Your task to perform on an android device: turn on improve location accuracy Image 0: 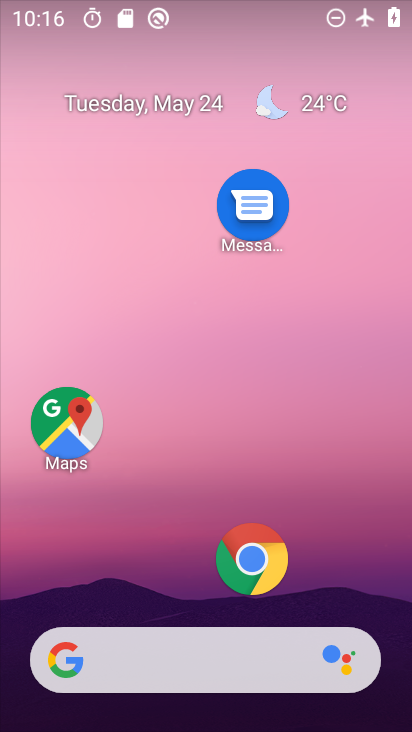
Step 0: drag from (185, 589) to (167, 222)
Your task to perform on an android device: turn on improve location accuracy Image 1: 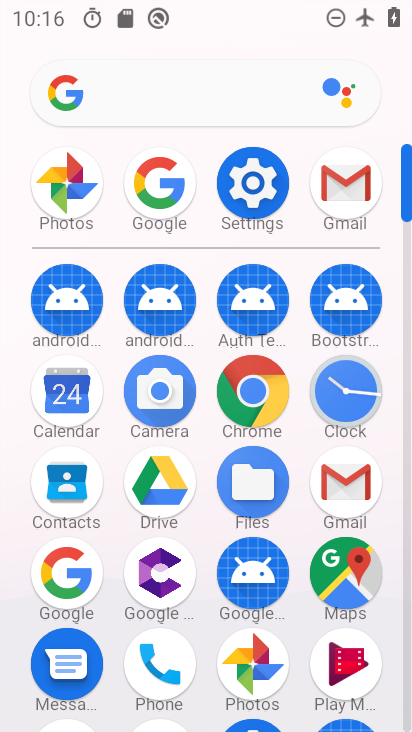
Step 1: click (254, 173)
Your task to perform on an android device: turn on improve location accuracy Image 2: 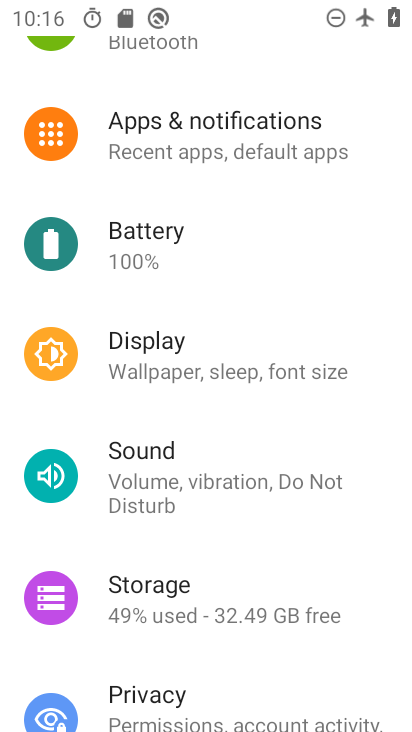
Step 2: drag from (248, 645) to (261, 273)
Your task to perform on an android device: turn on improve location accuracy Image 3: 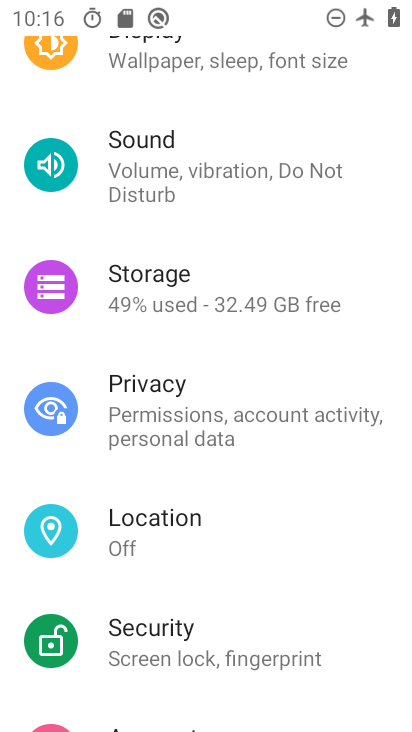
Step 3: drag from (234, 597) to (243, 317)
Your task to perform on an android device: turn on improve location accuracy Image 4: 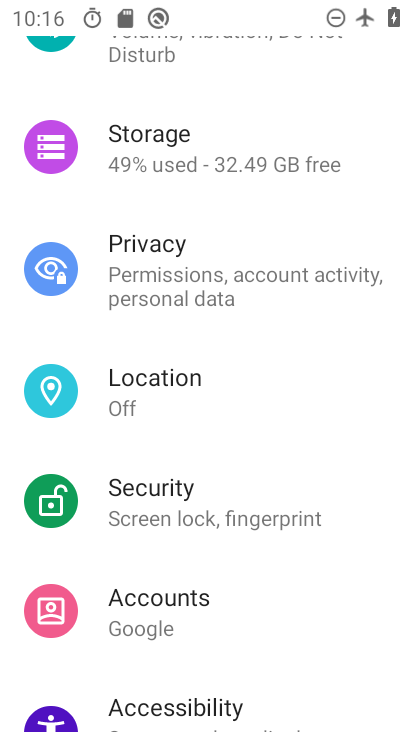
Step 4: click (213, 397)
Your task to perform on an android device: turn on improve location accuracy Image 5: 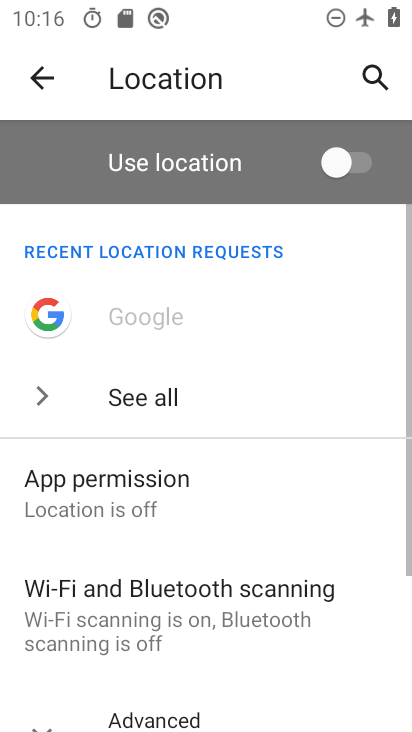
Step 5: drag from (201, 674) to (226, 414)
Your task to perform on an android device: turn on improve location accuracy Image 6: 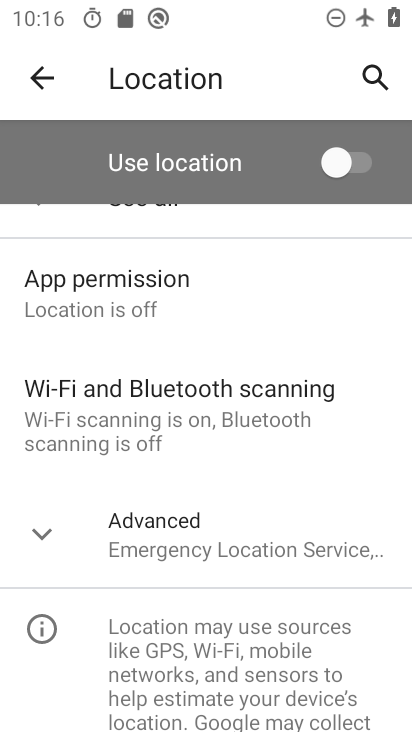
Step 6: click (210, 520)
Your task to perform on an android device: turn on improve location accuracy Image 7: 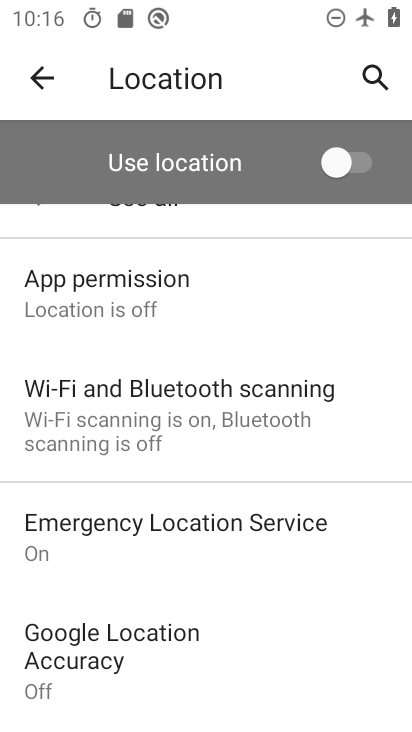
Step 7: click (174, 651)
Your task to perform on an android device: turn on improve location accuracy Image 8: 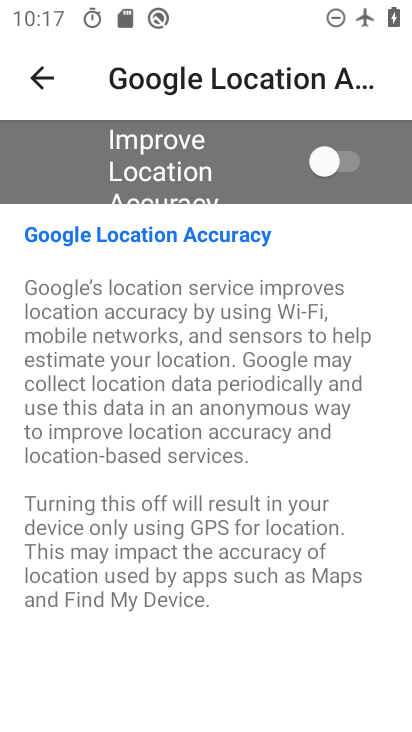
Step 8: click (337, 162)
Your task to perform on an android device: turn on improve location accuracy Image 9: 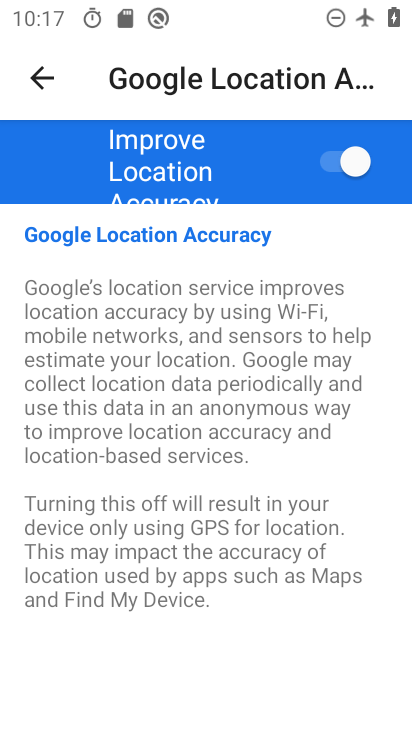
Step 9: task complete